Your task to perform on an android device: Toggle the flashlight Image 0: 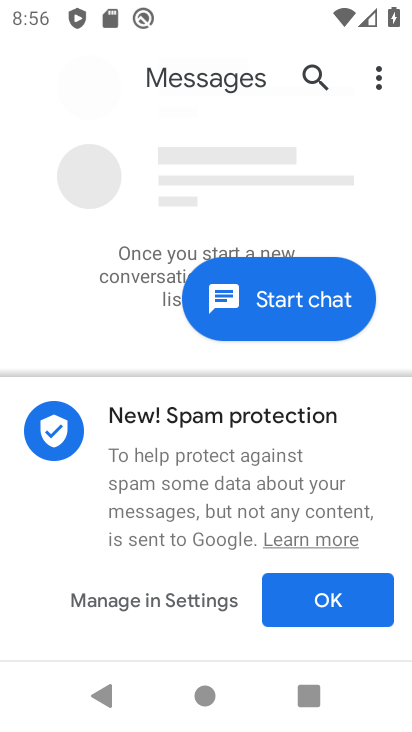
Step 0: press home button
Your task to perform on an android device: Toggle the flashlight Image 1: 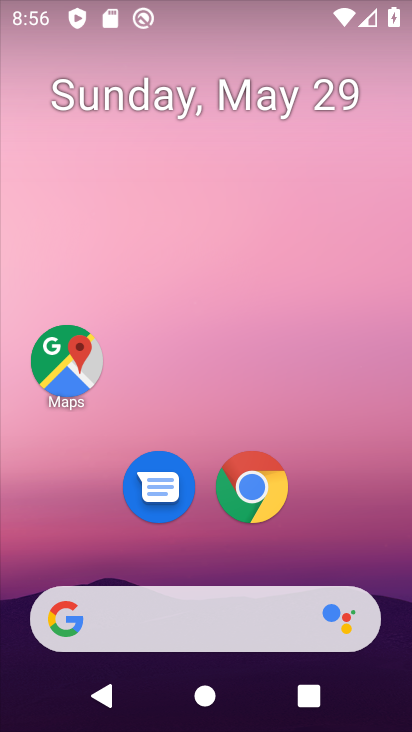
Step 1: drag from (210, 9) to (237, 496)
Your task to perform on an android device: Toggle the flashlight Image 2: 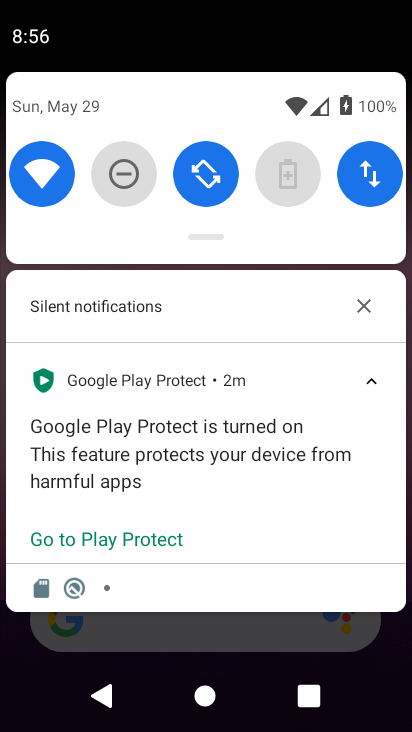
Step 2: drag from (206, 239) to (240, 640)
Your task to perform on an android device: Toggle the flashlight Image 3: 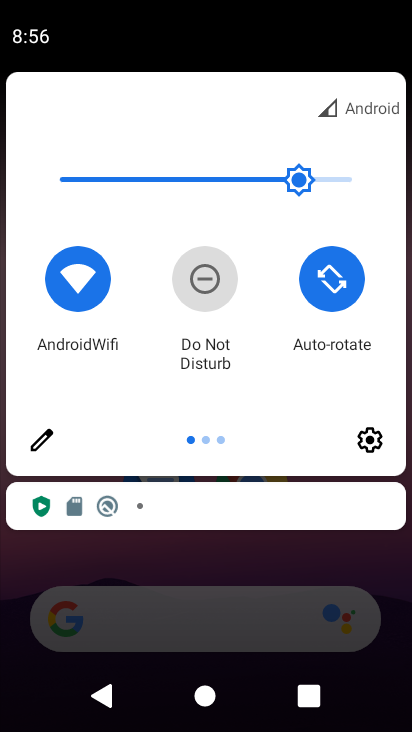
Step 3: click (36, 442)
Your task to perform on an android device: Toggle the flashlight Image 4: 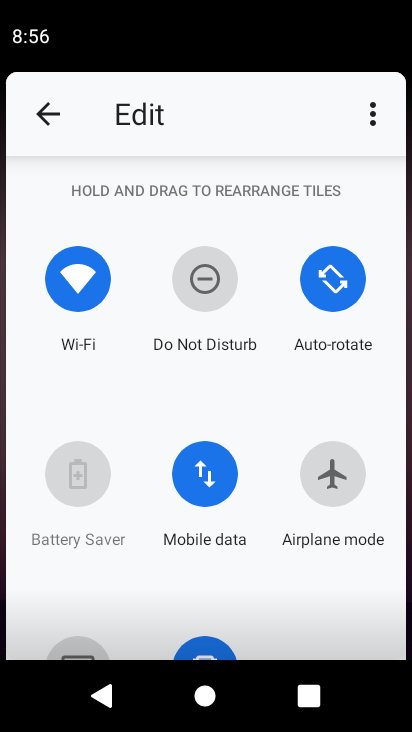
Step 4: task complete